Your task to perform on an android device: Open Yahoo.com Image 0: 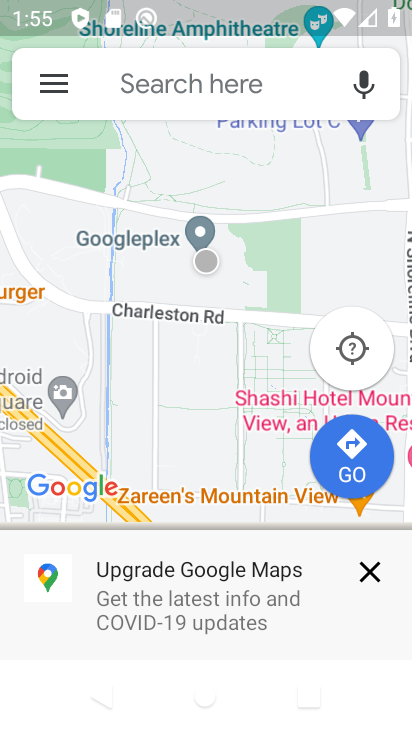
Step 0: press home button
Your task to perform on an android device: Open Yahoo.com Image 1: 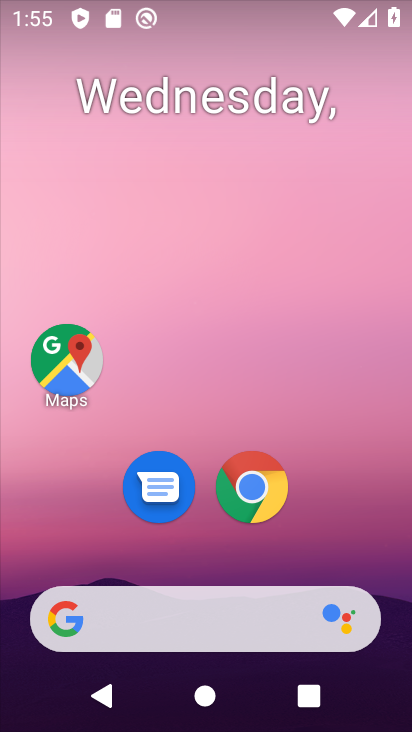
Step 1: drag from (321, 503) to (195, 65)
Your task to perform on an android device: Open Yahoo.com Image 2: 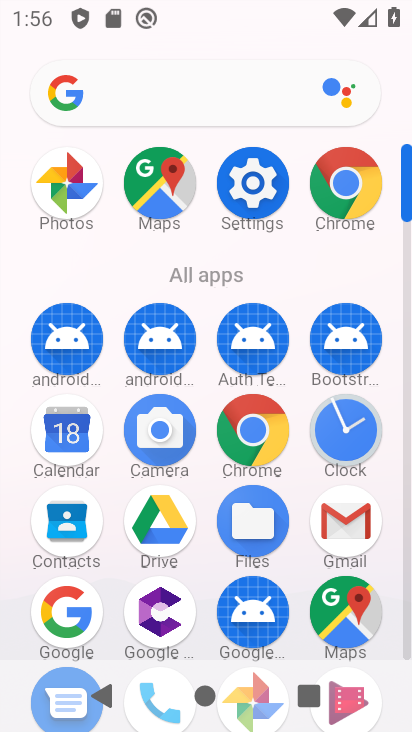
Step 2: click (334, 176)
Your task to perform on an android device: Open Yahoo.com Image 3: 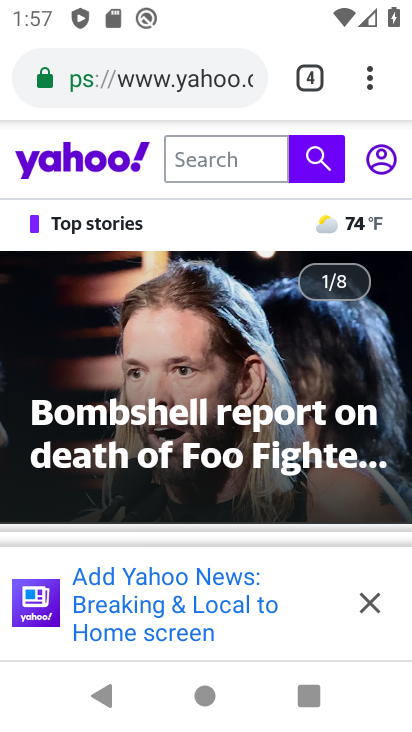
Step 3: task complete